Your task to perform on an android device: toggle javascript in the chrome app Image 0: 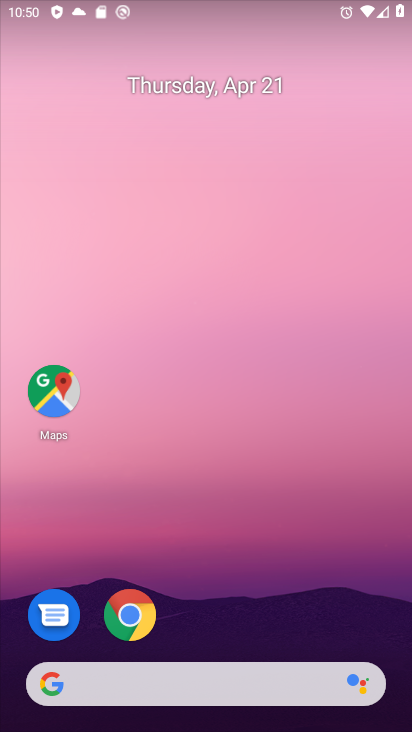
Step 0: drag from (212, 604) to (270, 381)
Your task to perform on an android device: toggle javascript in the chrome app Image 1: 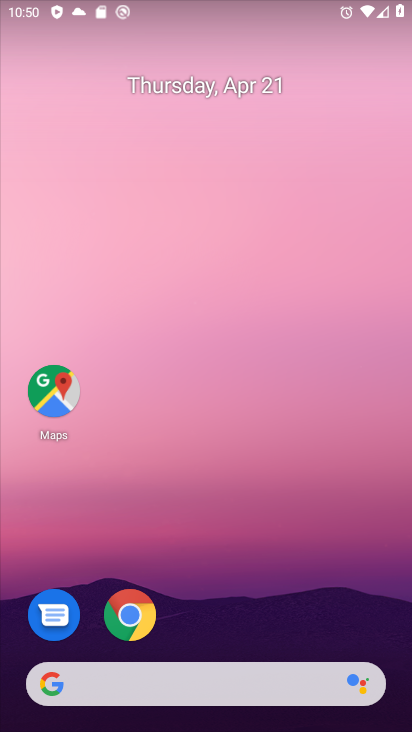
Step 1: drag from (259, 630) to (308, 90)
Your task to perform on an android device: toggle javascript in the chrome app Image 2: 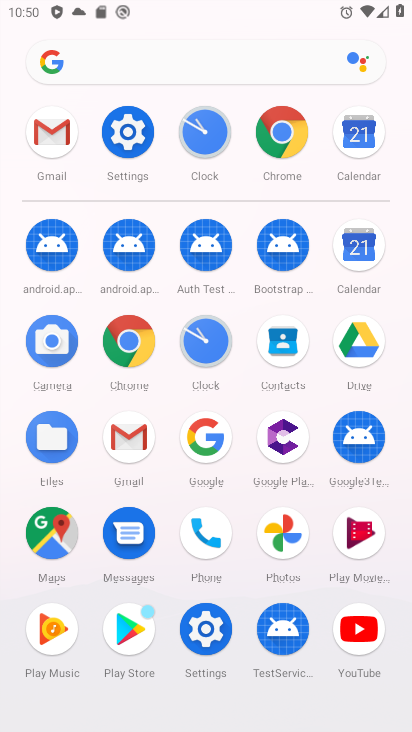
Step 2: click (130, 339)
Your task to perform on an android device: toggle javascript in the chrome app Image 3: 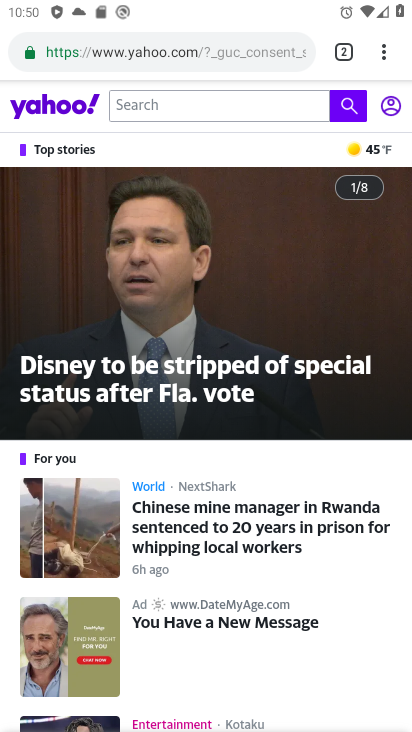
Step 3: click (386, 51)
Your task to perform on an android device: toggle javascript in the chrome app Image 4: 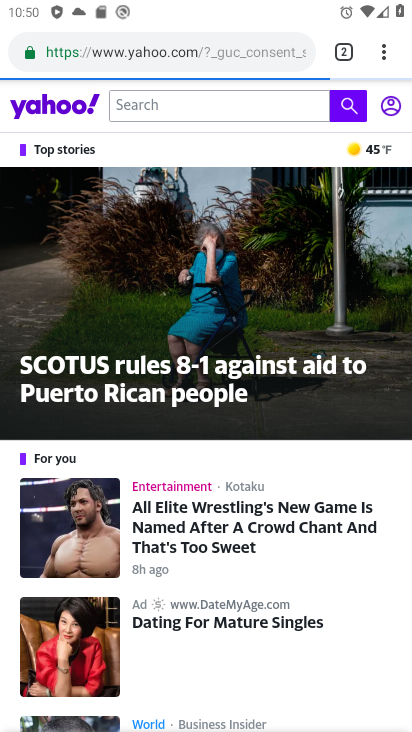
Step 4: click (383, 51)
Your task to perform on an android device: toggle javascript in the chrome app Image 5: 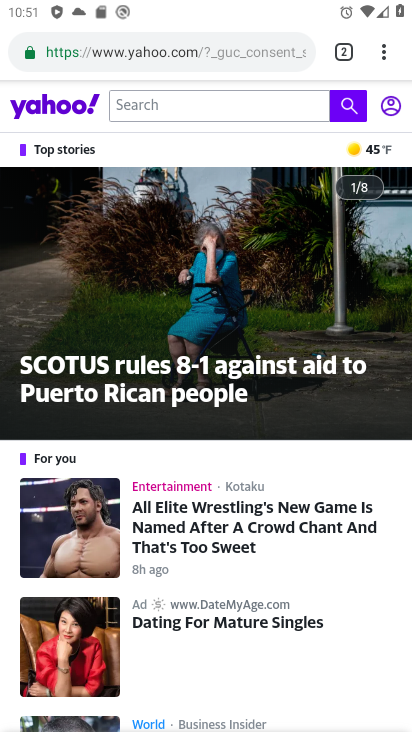
Step 5: click (382, 42)
Your task to perform on an android device: toggle javascript in the chrome app Image 6: 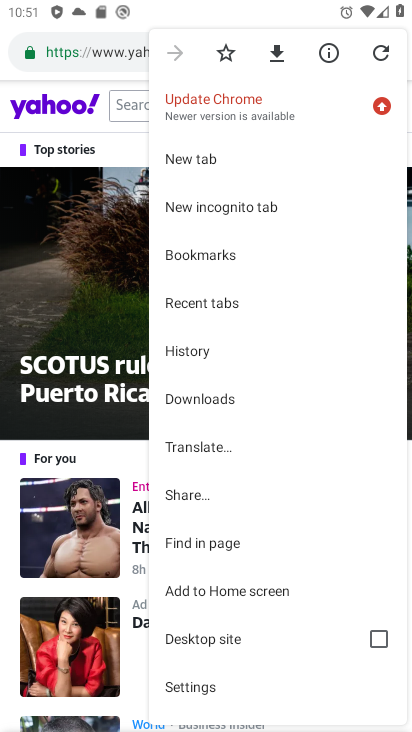
Step 6: click (217, 687)
Your task to perform on an android device: toggle javascript in the chrome app Image 7: 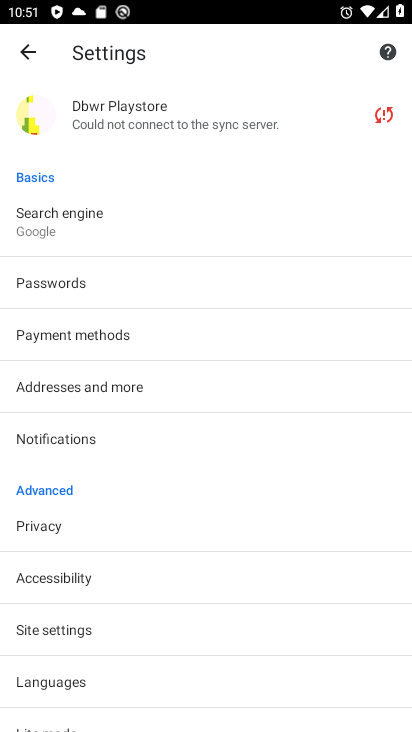
Step 7: click (99, 626)
Your task to perform on an android device: toggle javascript in the chrome app Image 8: 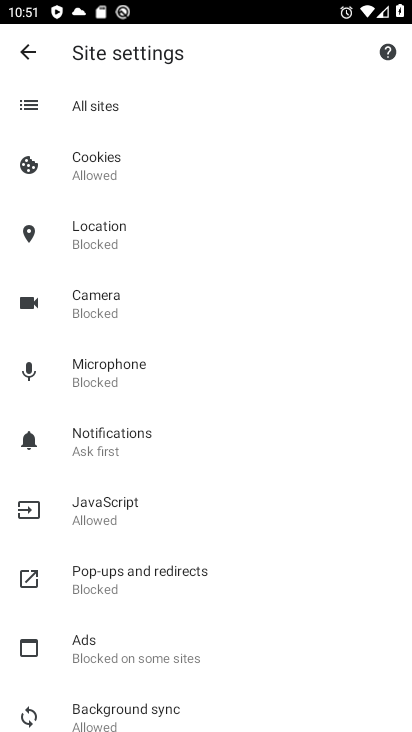
Step 8: click (138, 507)
Your task to perform on an android device: toggle javascript in the chrome app Image 9: 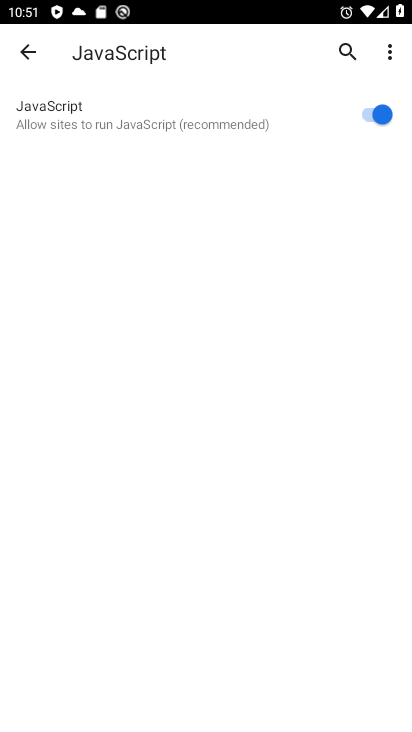
Step 9: click (365, 108)
Your task to perform on an android device: toggle javascript in the chrome app Image 10: 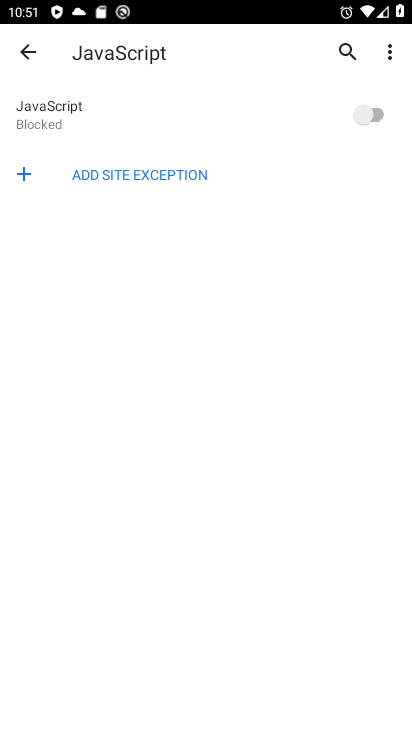
Step 10: task complete